Your task to perform on an android device: Search for Mexican restaurants on Maps Image 0: 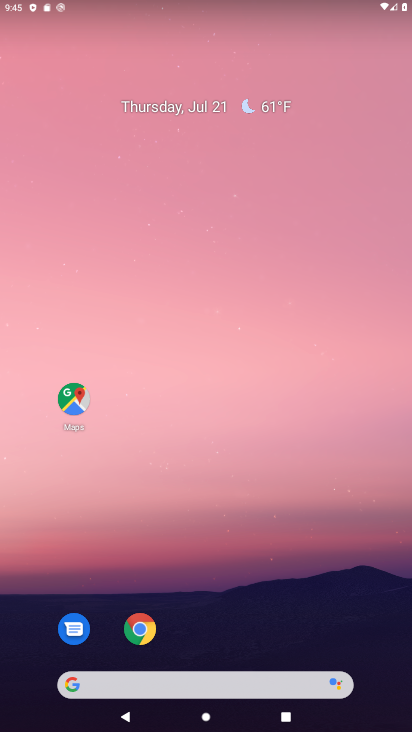
Step 0: drag from (262, 639) to (222, 201)
Your task to perform on an android device: Search for Mexican restaurants on Maps Image 1: 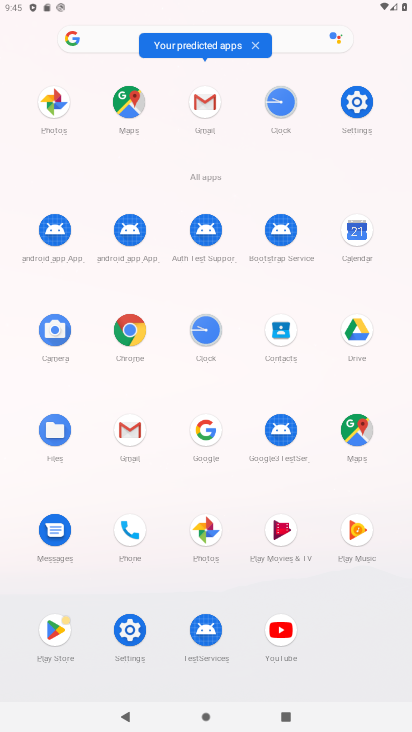
Step 1: click (119, 96)
Your task to perform on an android device: Search for Mexican restaurants on Maps Image 2: 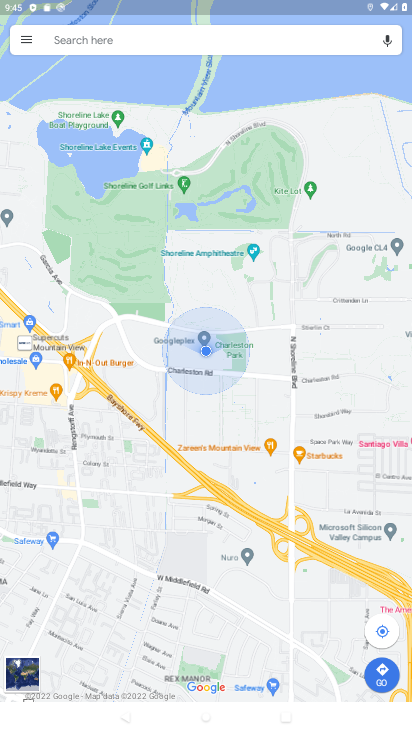
Step 2: click (195, 37)
Your task to perform on an android device: Search for Mexican restaurants on Maps Image 3: 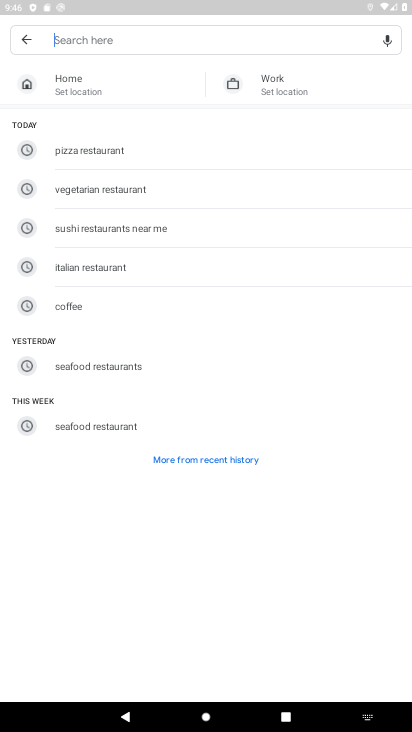
Step 3: click (128, 33)
Your task to perform on an android device: Search for Mexican restaurants on Maps Image 4: 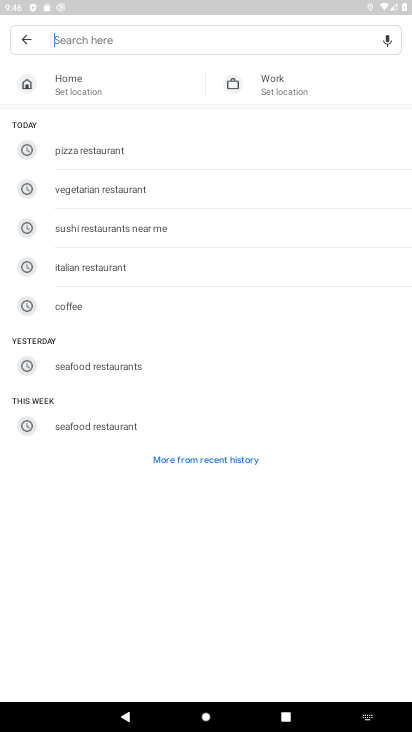
Step 4: type "Mexican restaurants"
Your task to perform on an android device: Search for Mexican restaurants on Maps Image 5: 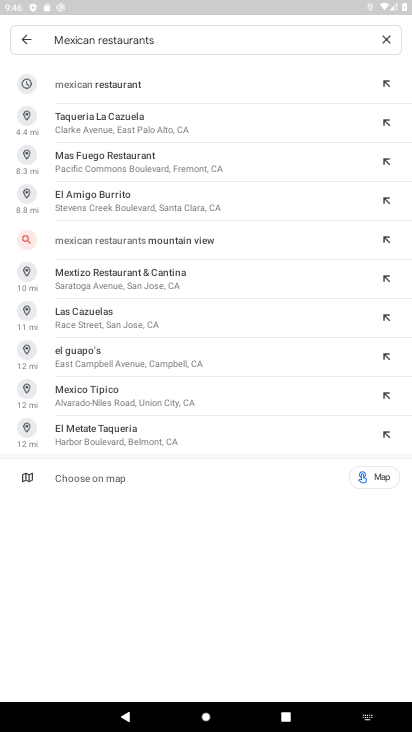
Step 5: click (294, 81)
Your task to perform on an android device: Search for Mexican restaurants on Maps Image 6: 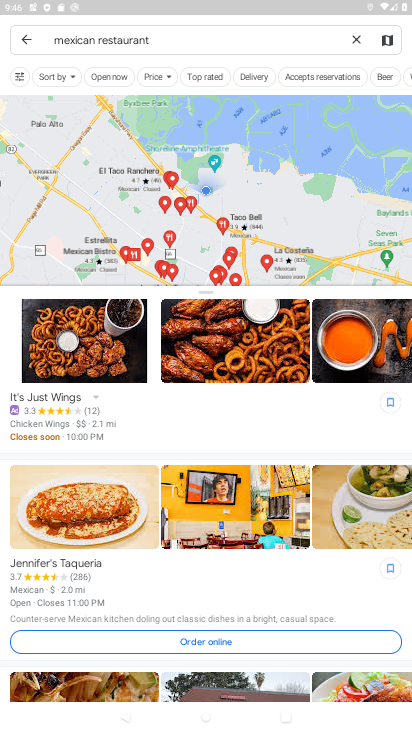
Step 6: task complete